Your task to perform on an android device: Search for Mexican restaurants on Maps Image 0: 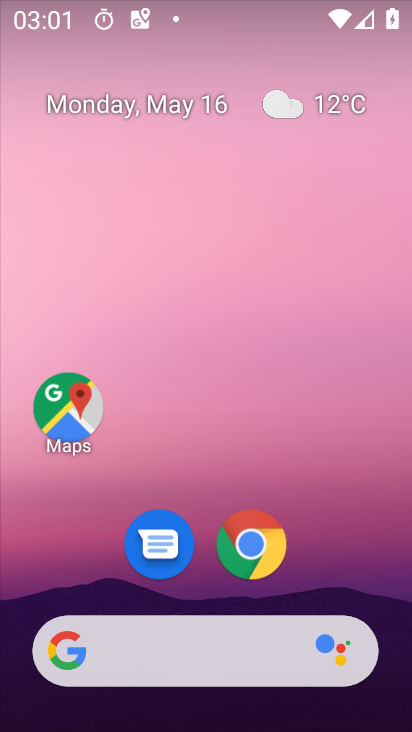
Step 0: drag from (197, 717) to (282, 108)
Your task to perform on an android device: Search for Mexican restaurants on Maps Image 1: 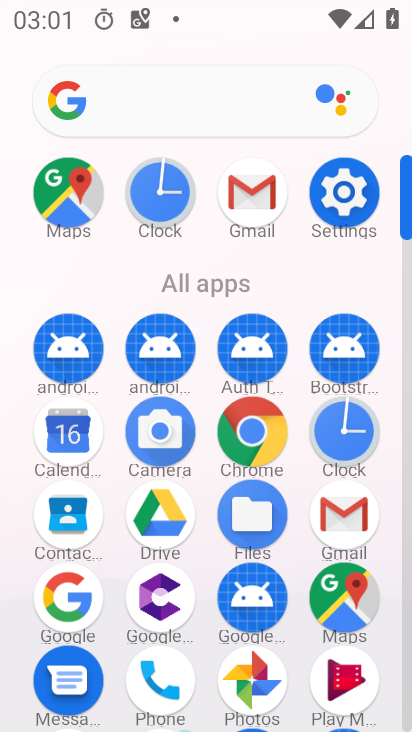
Step 1: click (344, 593)
Your task to perform on an android device: Search for Mexican restaurants on Maps Image 2: 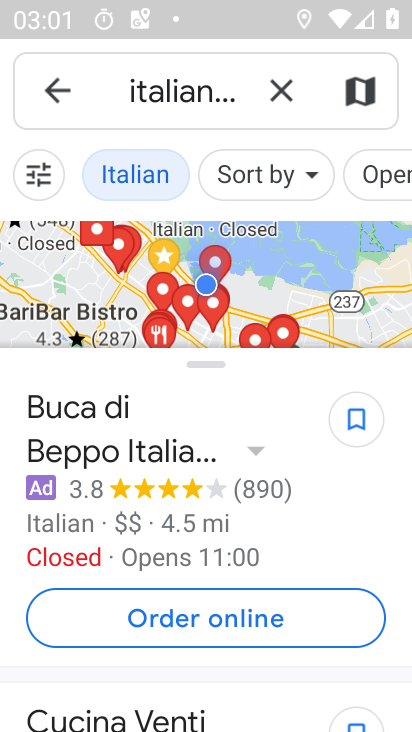
Step 2: click (281, 90)
Your task to perform on an android device: Search for Mexican restaurants on Maps Image 3: 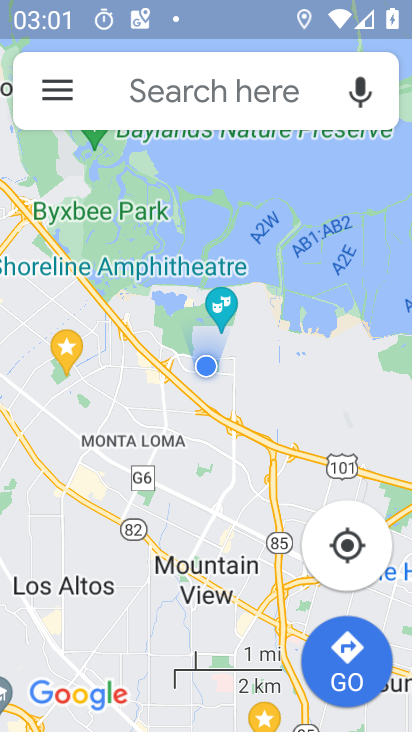
Step 3: click (187, 83)
Your task to perform on an android device: Search for Mexican restaurants on Maps Image 4: 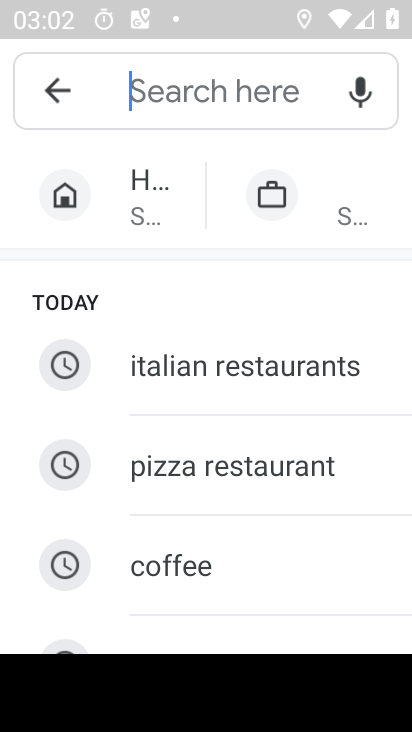
Step 4: type "Mexican restaurants"
Your task to perform on an android device: Search for Mexican restaurants on Maps Image 5: 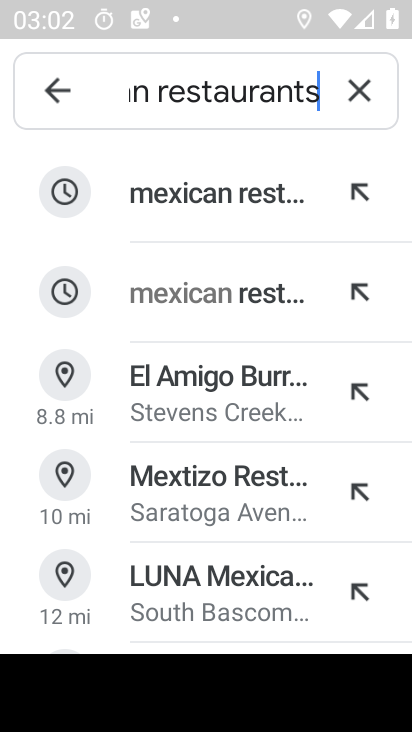
Step 5: click (235, 188)
Your task to perform on an android device: Search for Mexican restaurants on Maps Image 6: 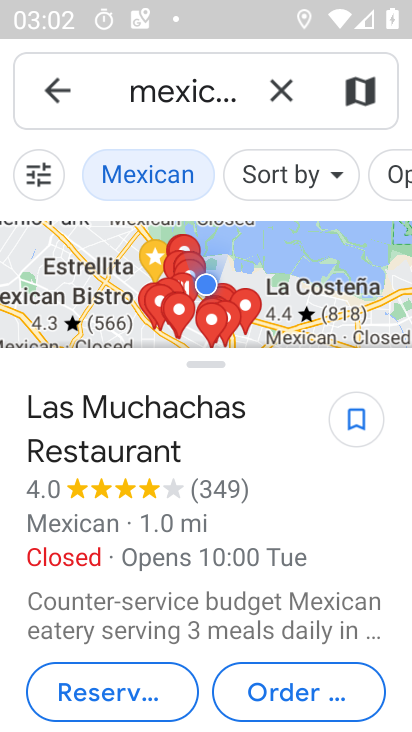
Step 6: task complete